Your task to perform on an android device: find which apps use the phone's location Image 0: 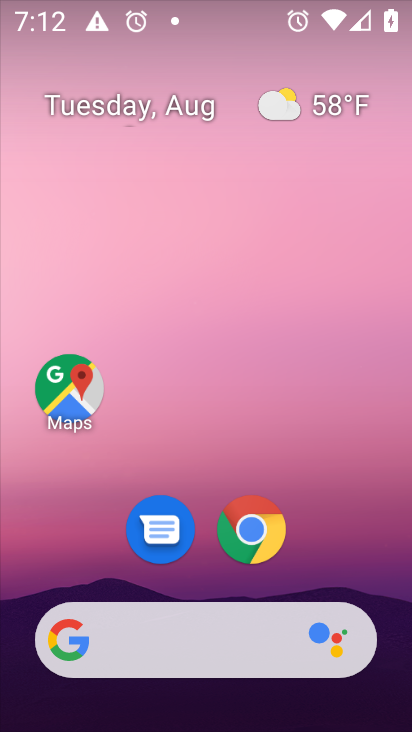
Step 0: press home button
Your task to perform on an android device: find which apps use the phone's location Image 1: 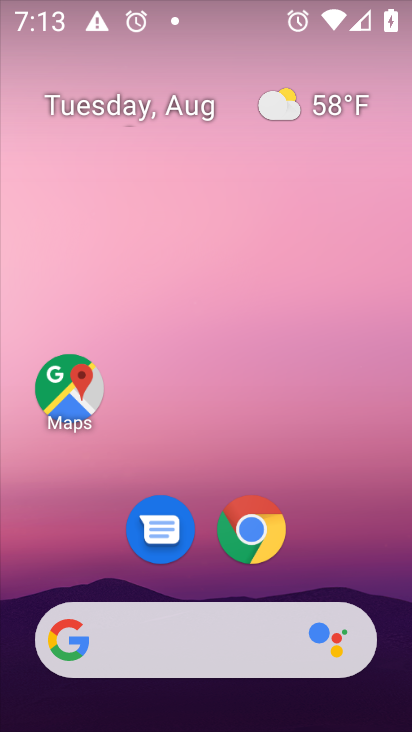
Step 1: drag from (215, 579) to (205, 178)
Your task to perform on an android device: find which apps use the phone's location Image 2: 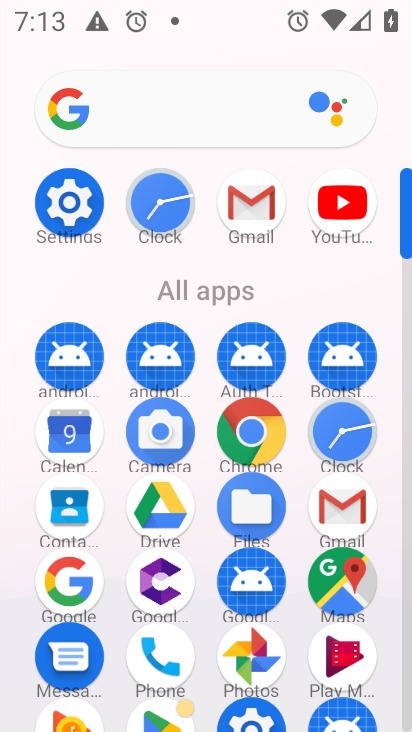
Step 2: click (63, 204)
Your task to perform on an android device: find which apps use the phone's location Image 3: 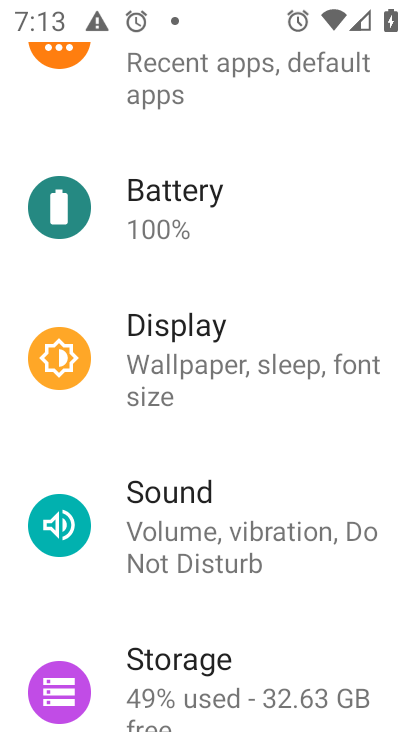
Step 3: drag from (292, 608) to (225, 172)
Your task to perform on an android device: find which apps use the phone's location Image 4: 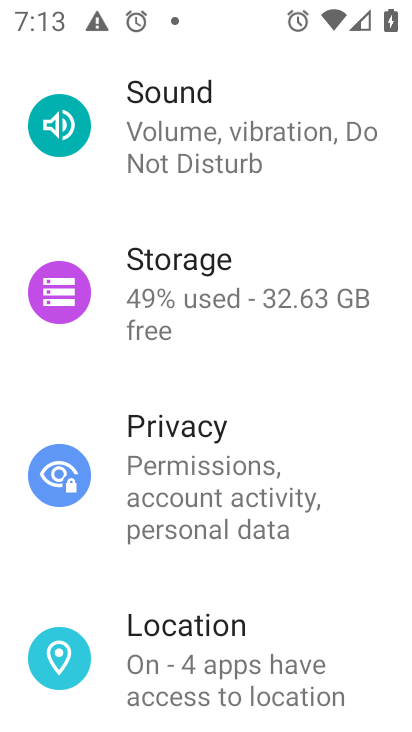
Step 4: click (184, 627)
Your task to perform on an android device: find which apps use the phone's location Image 5: 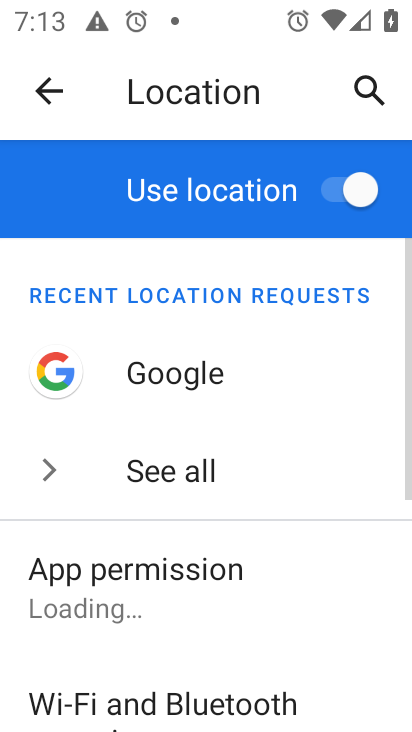
Step 5: drag from (292, 616) to (284, 319)
Your task to perform on an android device: find which apps use the phone's location Image 6: 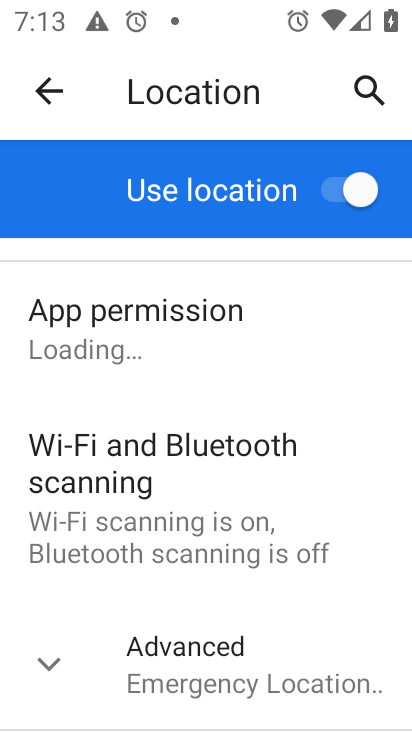
Step 6: click (137, 325)
Your task to perform on an android device: find which apps use the phone's location Image 7: 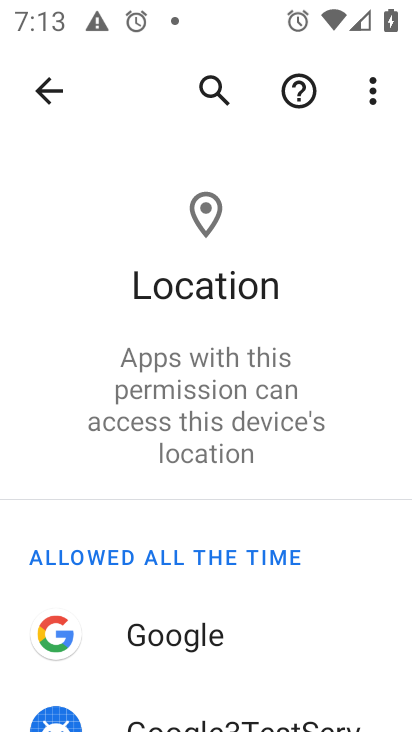
Step 7: task complete